Your task to perform on an android device: toggle notification dots Image 0: 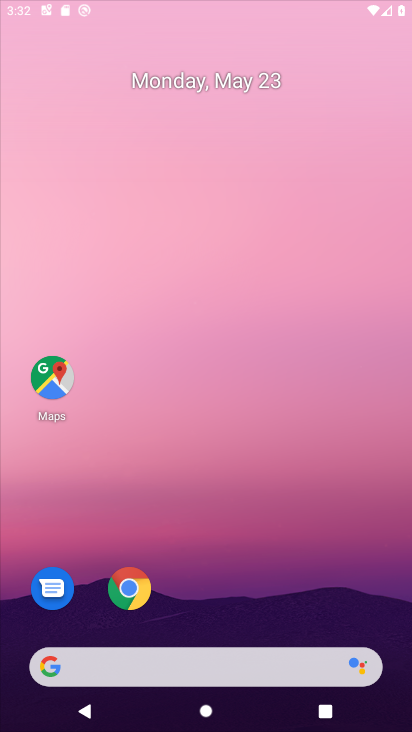
Step 0: drag from (186, 598) to (254, 53)
Your task to perform on an android device: toggle notification dots Image 1: 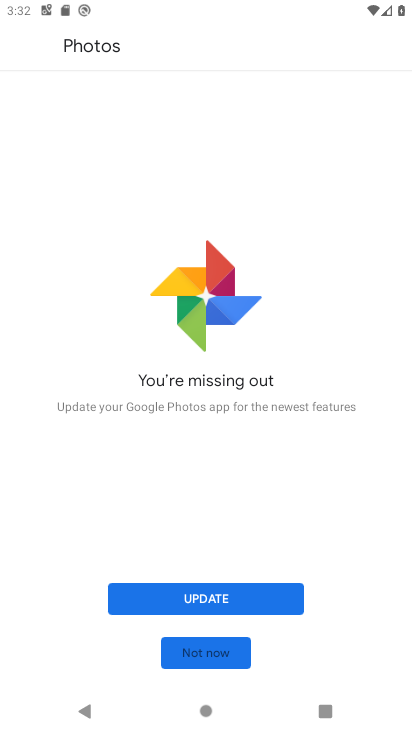
Step 1: press home button
Your task to perform on an android device: toggle notification dots Image 2: 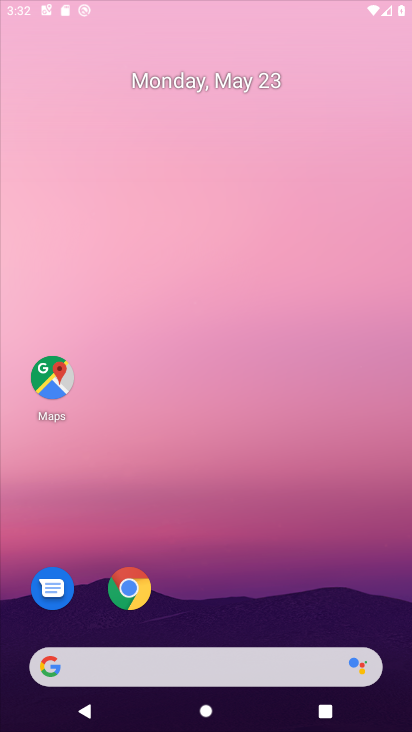
Step 2: drag from (231, 576) to (267, 135)
Your task to perform on an android device: toggle notification dots Image 3: 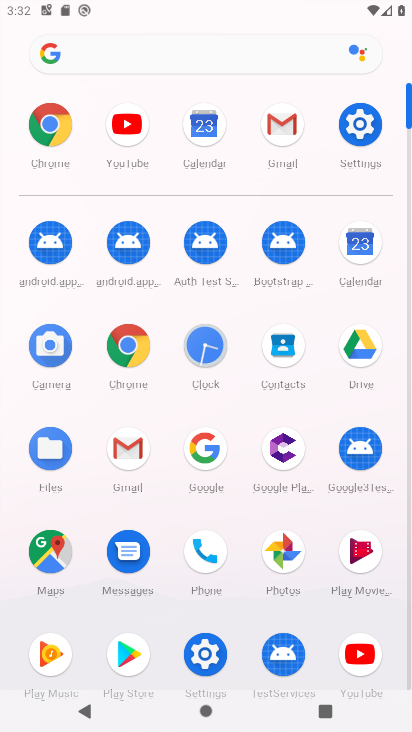
Step 3: click (344, 119)
Your task to perform on an android device: toggle notification dots Image 4: 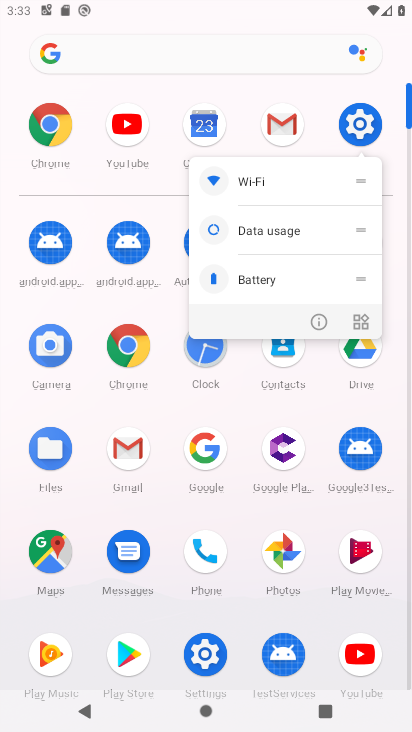
Step 4: click (313, 313)
Your task to perform on an android device: toggle notification dots Image 5: 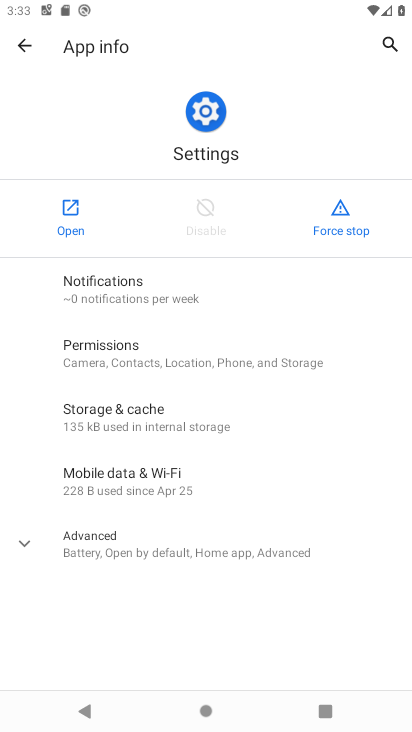
Step 5: click (61, 212)
Your task to perform on an android device: toggle notification dots Image 6: 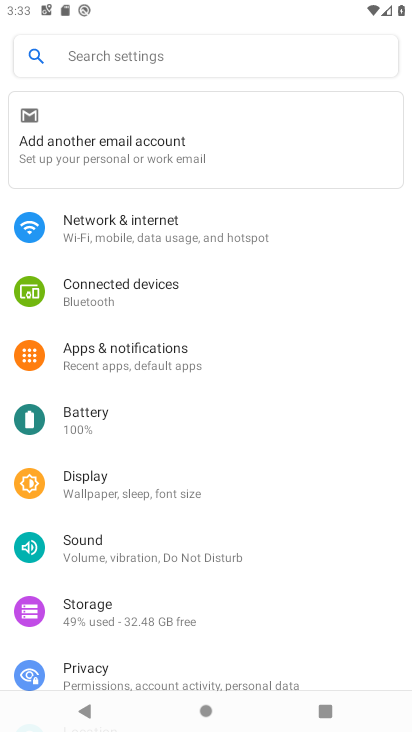
Step 6: click (123, 349)
Your task to perform on an android device: toggle notification dots Image 7: 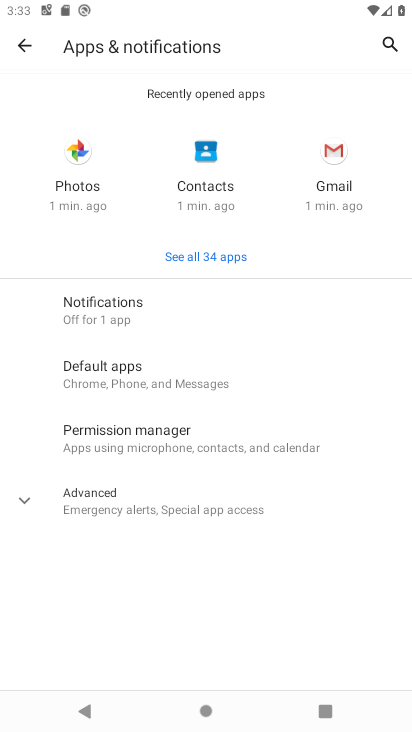
Step 7: click (156, 304)
Your task to perform on an android device: toggle notification dots Image 8: 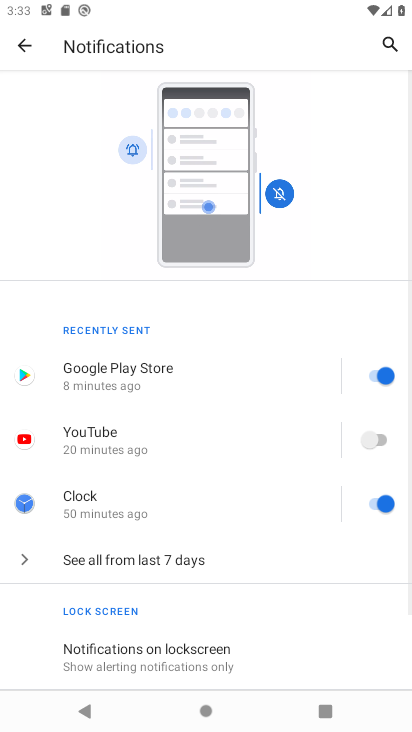
Step 8: drag from (230, 602) to (318, 224)
Your task to perform on an android device: toggle notification dots Image 9: 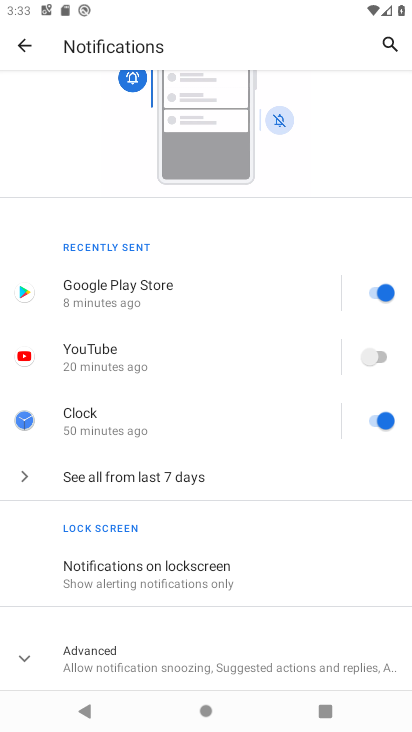
Step 9: click (135, 658)
Your task to perform on an android device: toggle notification dots Image 10: 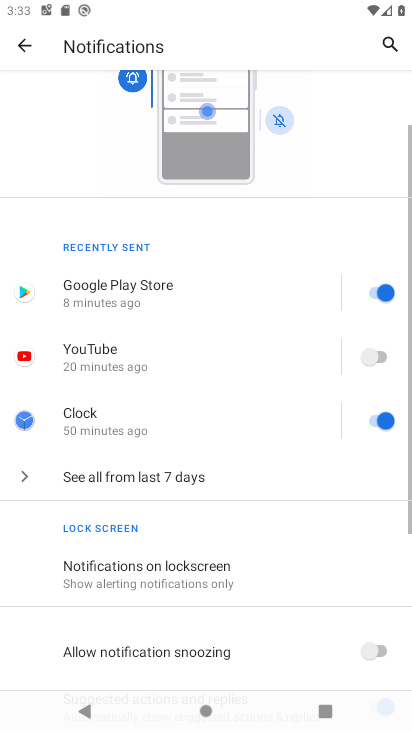
Step 10: drag from (160, 630) to (270, 166)
Your task to perform on an android device: toggle notification dots Image 11: 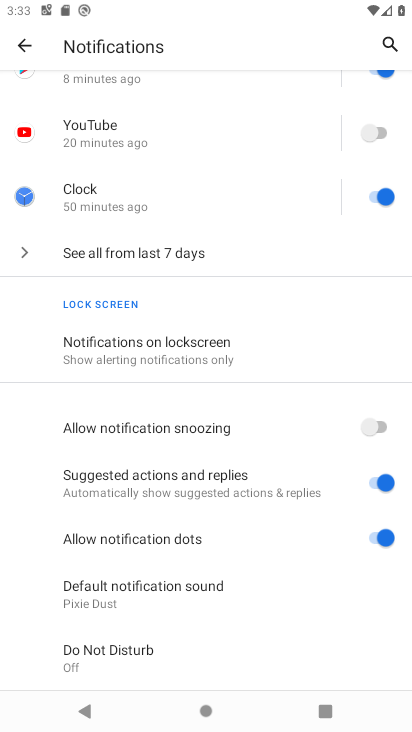
Step 11: click (385, 530)
Your task to perform on an android device: toggle notification dots Image 12: 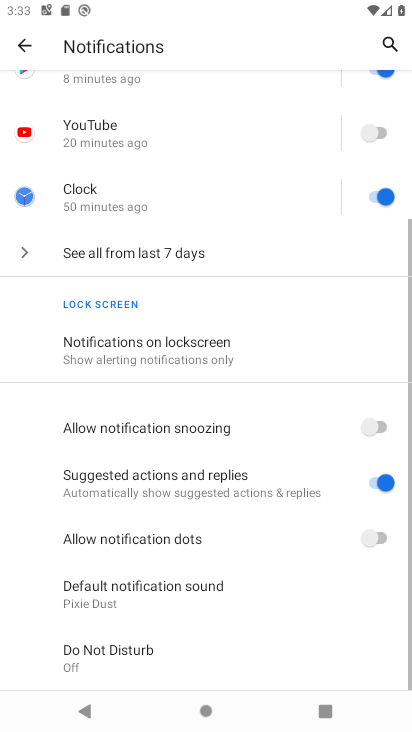
Step 12: task complete